Your task to perform on an android device: uninstall "Gboard" Image 0: 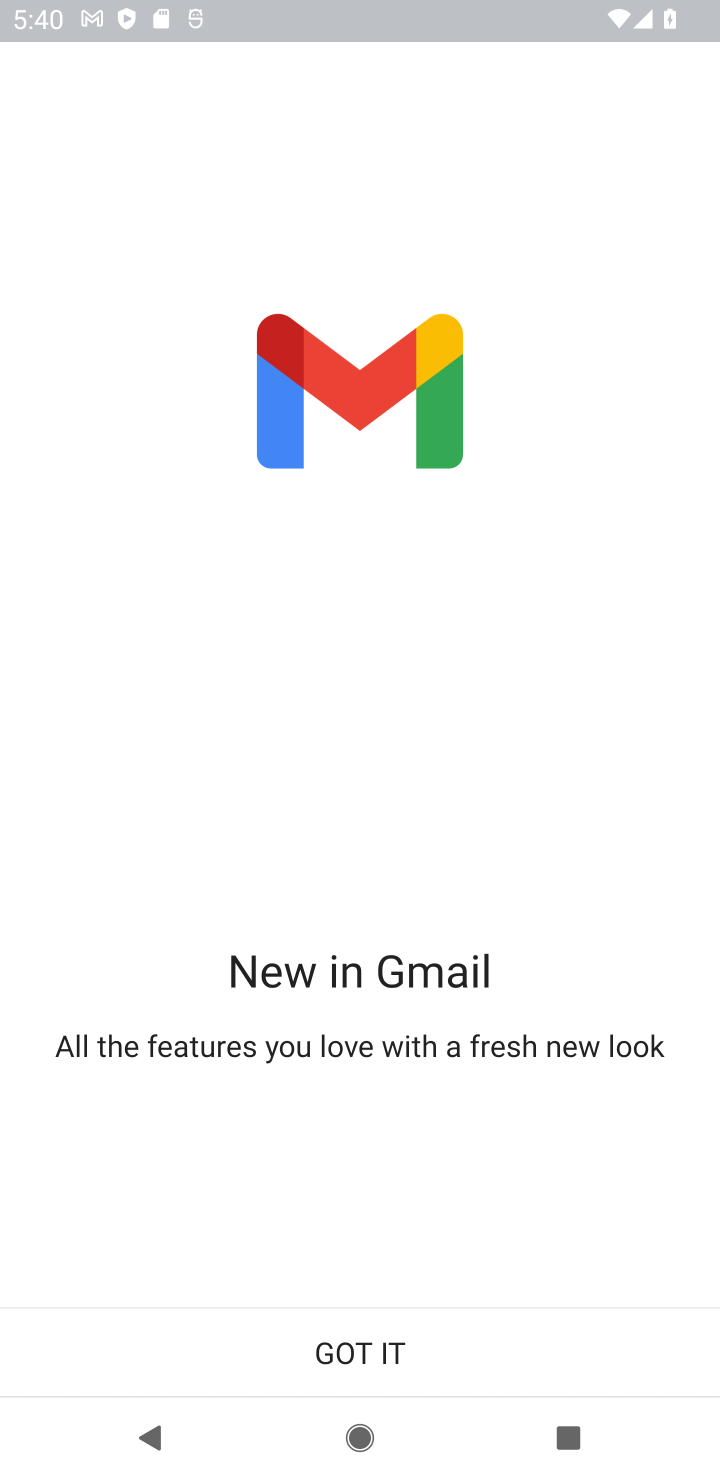
Step 0: press home button
Your task to perform on an android device: uninstall "Gboard" Image 1: 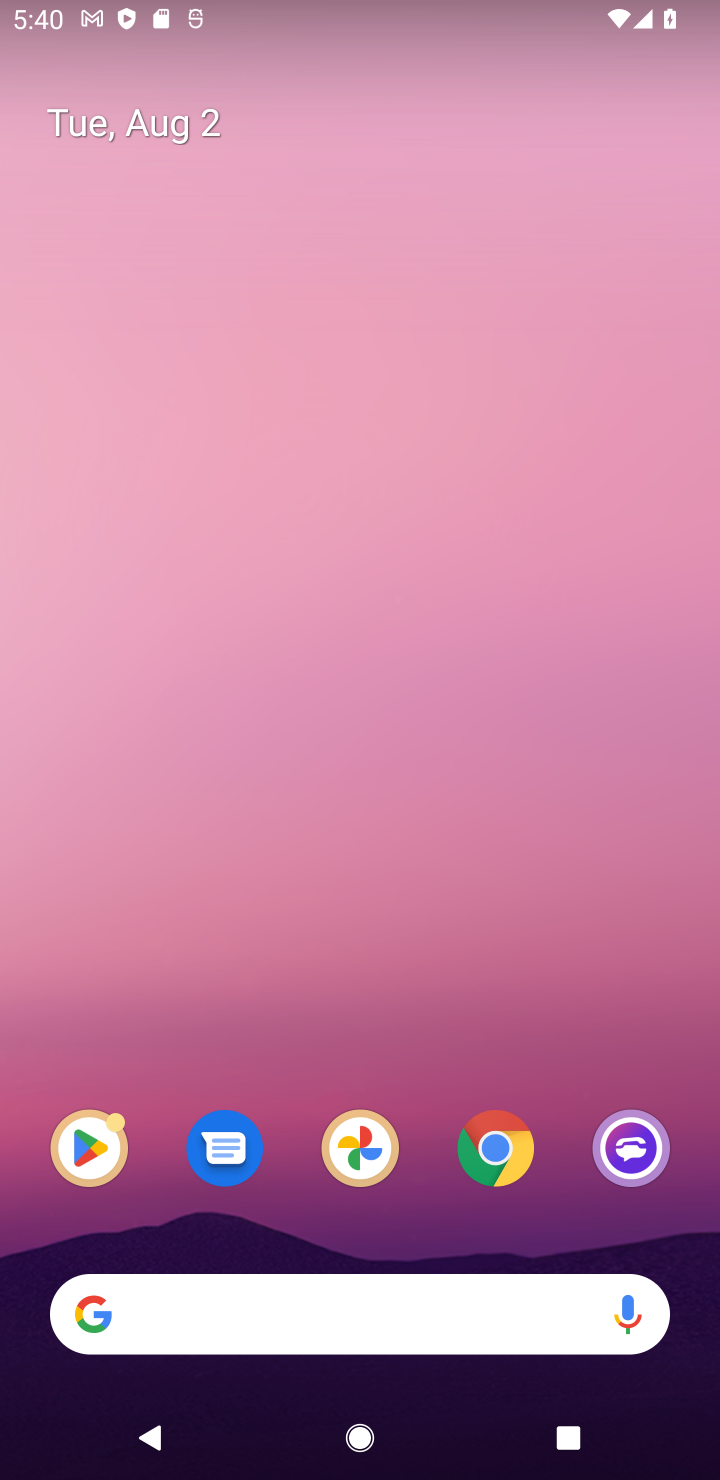
Step 1: drag from (673, 1216) to (356, 184)
Your task to perform on an android device: uninstall "Gboard" Image 2: 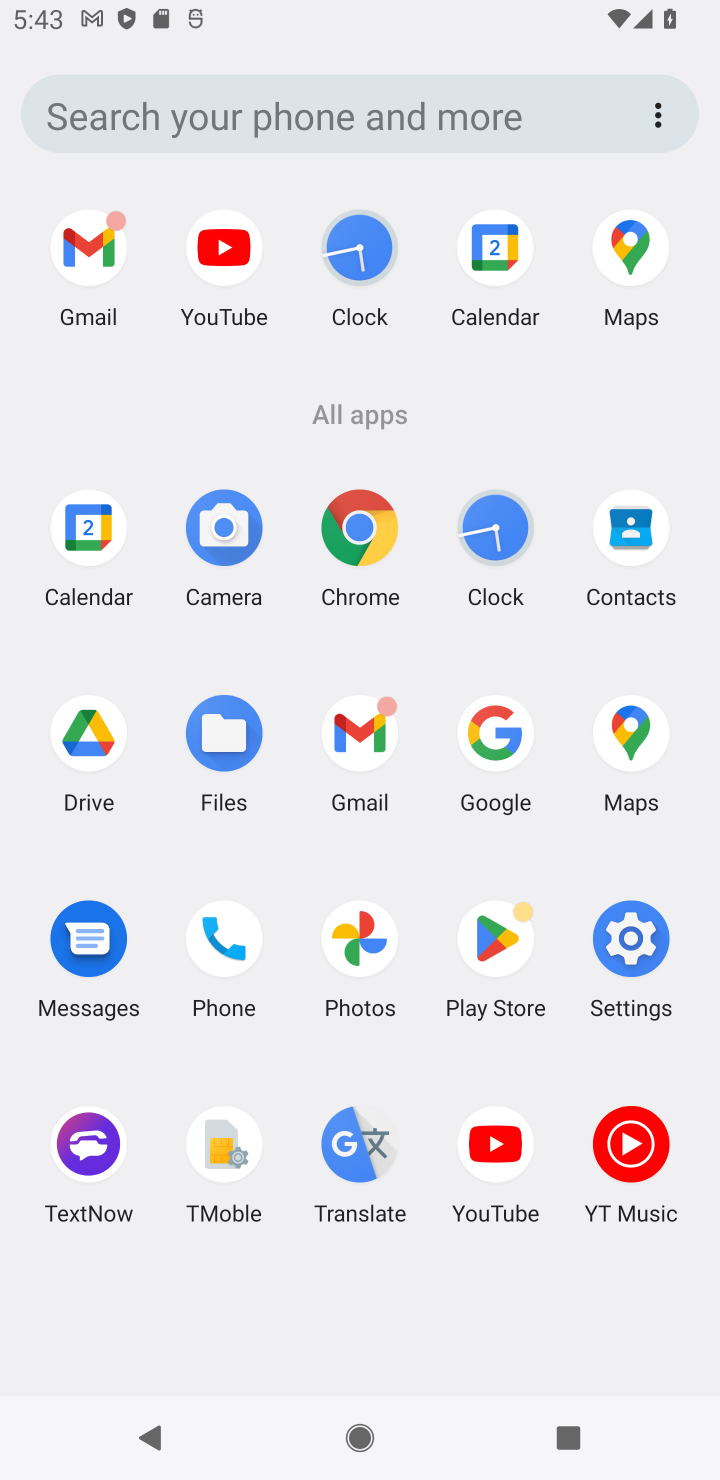
Step 2: click (484, 932)
Your task to perform on an android device: uninstall "Gboard" Image 3: 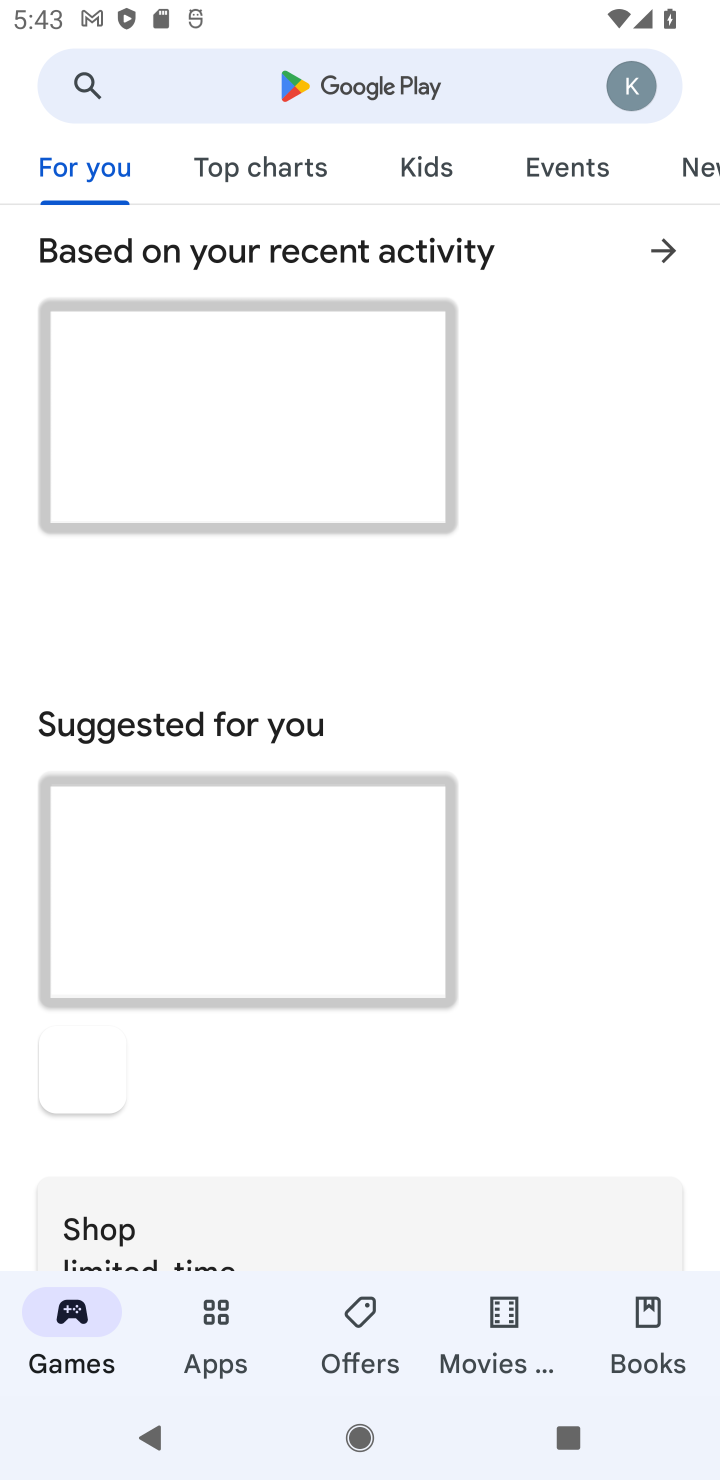
Step 3: click (238, 111)
Your task to perform on an android device: uninstall "Gboard" Image 4: 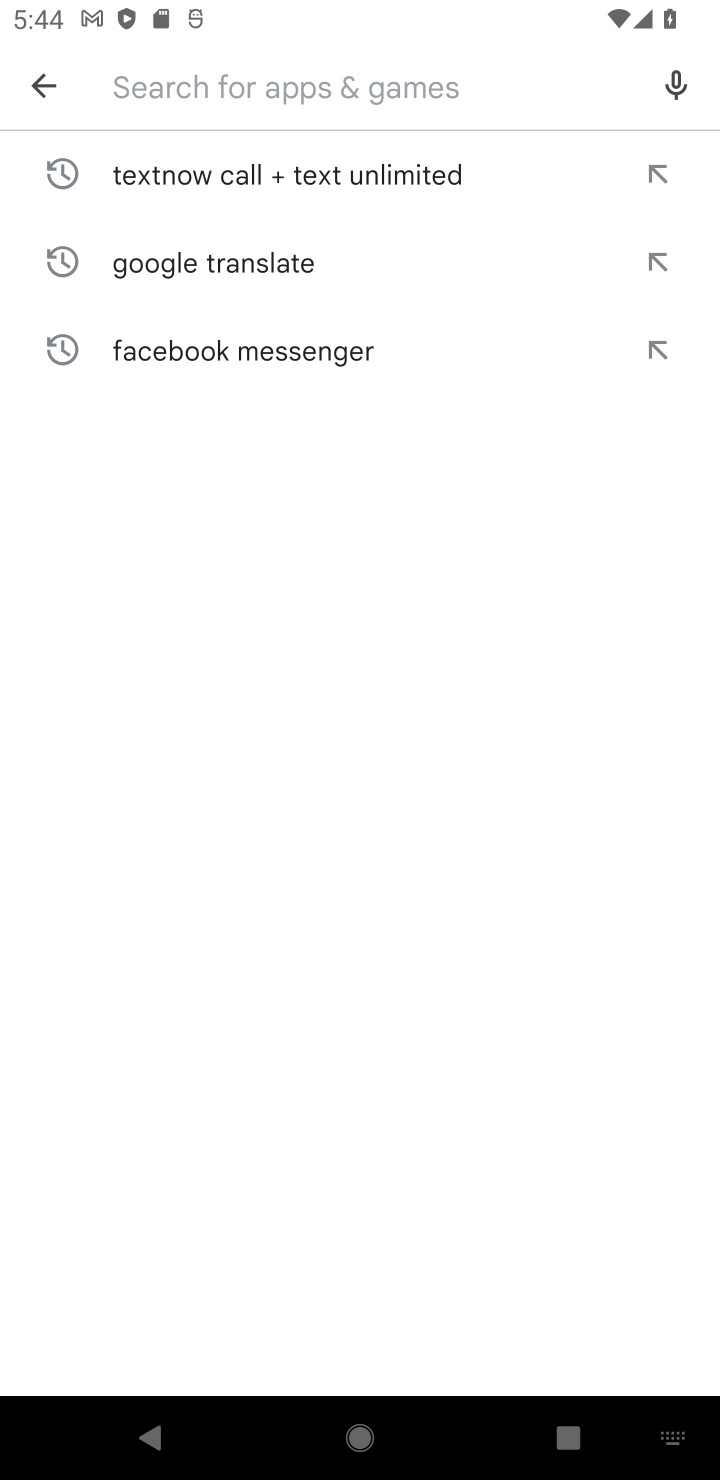
Step 4: type "Gboard"
Your task to perform on an android device: uninstall "Gboard" Image 5: 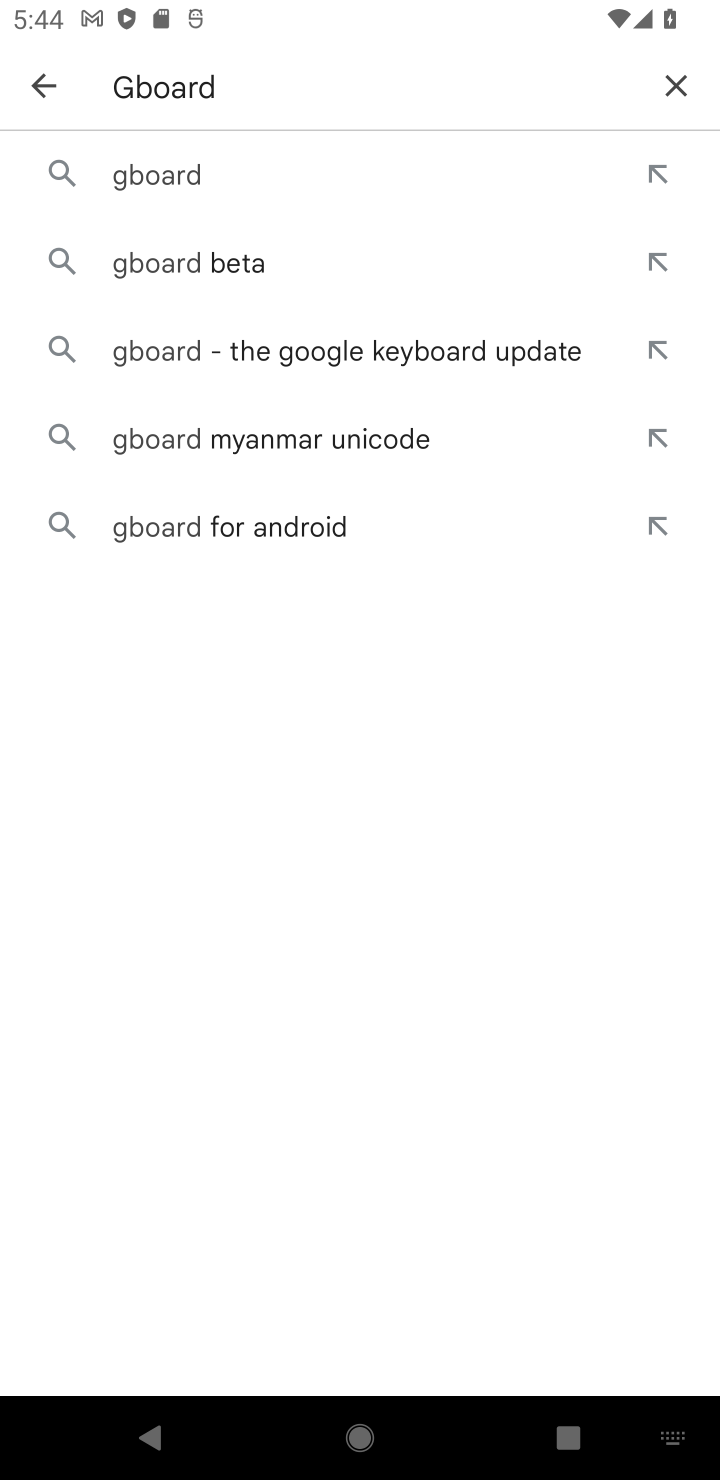
Step 5: click (202, 185)
Your task to perform on an android device: uninstall "Gboard" Image 6: 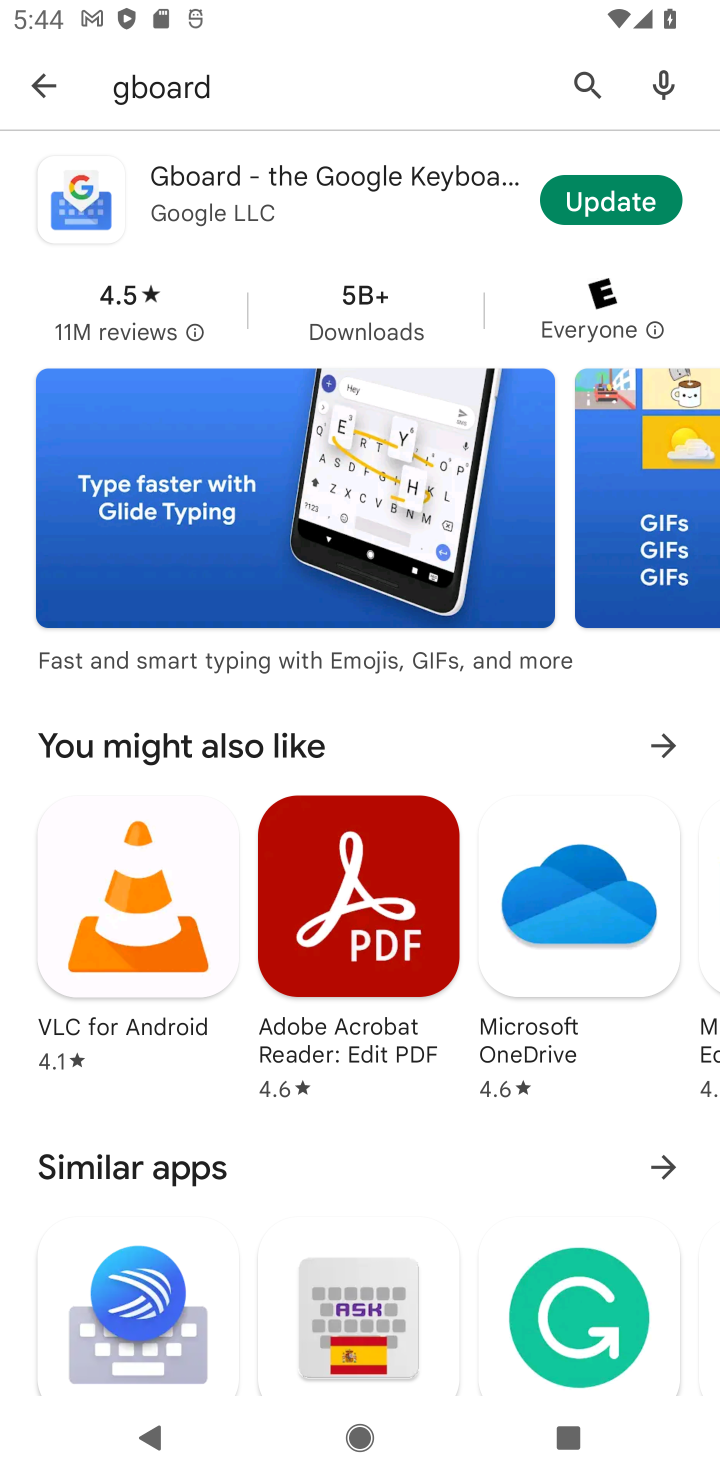
Step 6: click (645, 188)
Your task to perform on an android device: uninstall "Gboard" Image 7: 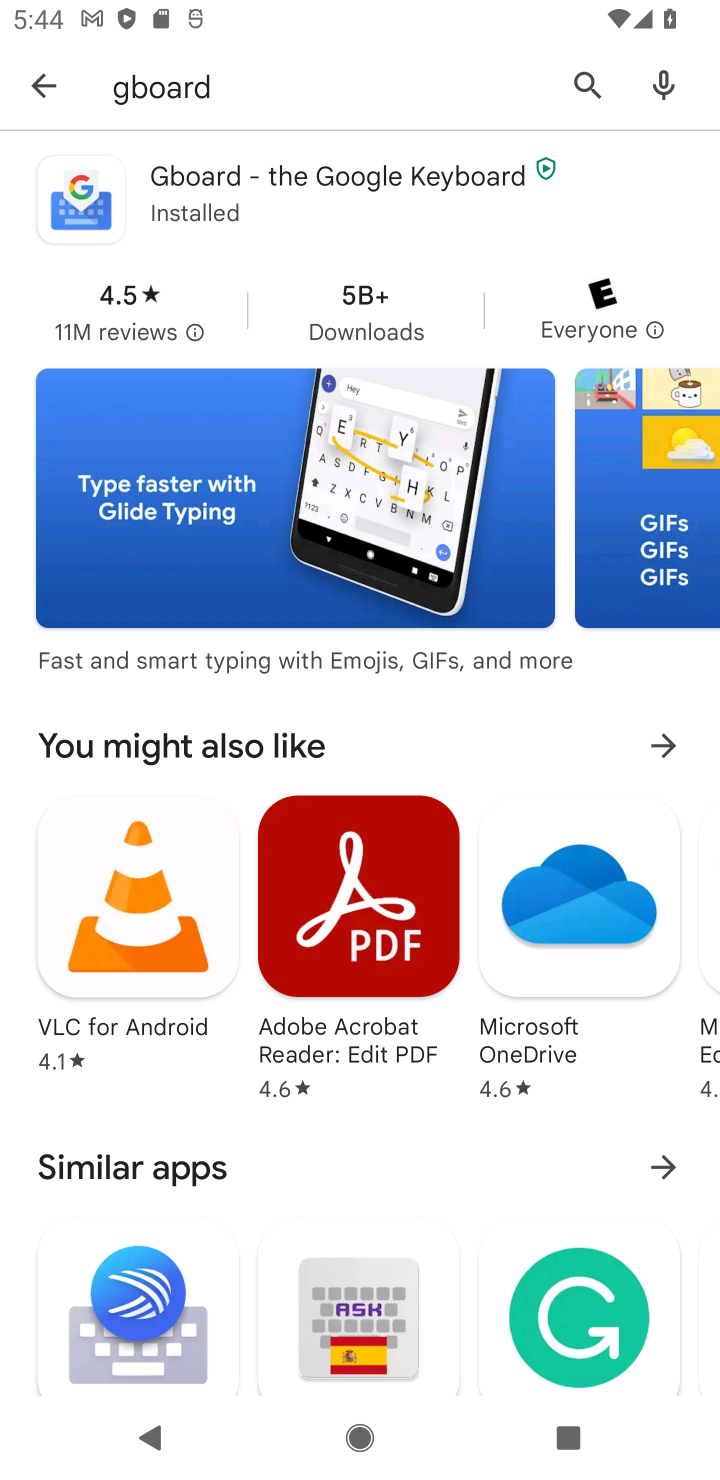
Step 7: click (118, 195)
Your task to perform on an android device: uninstall "Gboard" Image 8: 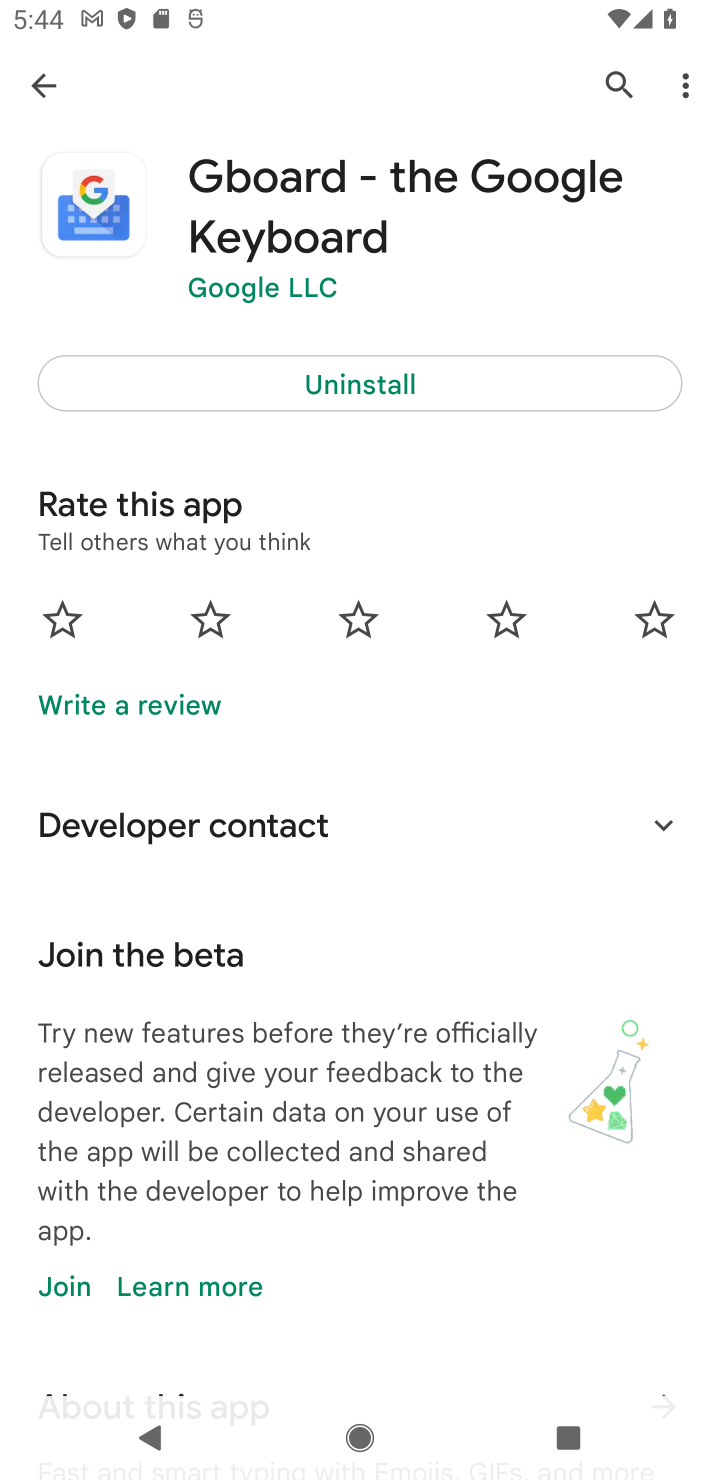
Step 8: click (388, 394)
Your task to perform on an android device: uninstall "Gboard" Image 9: 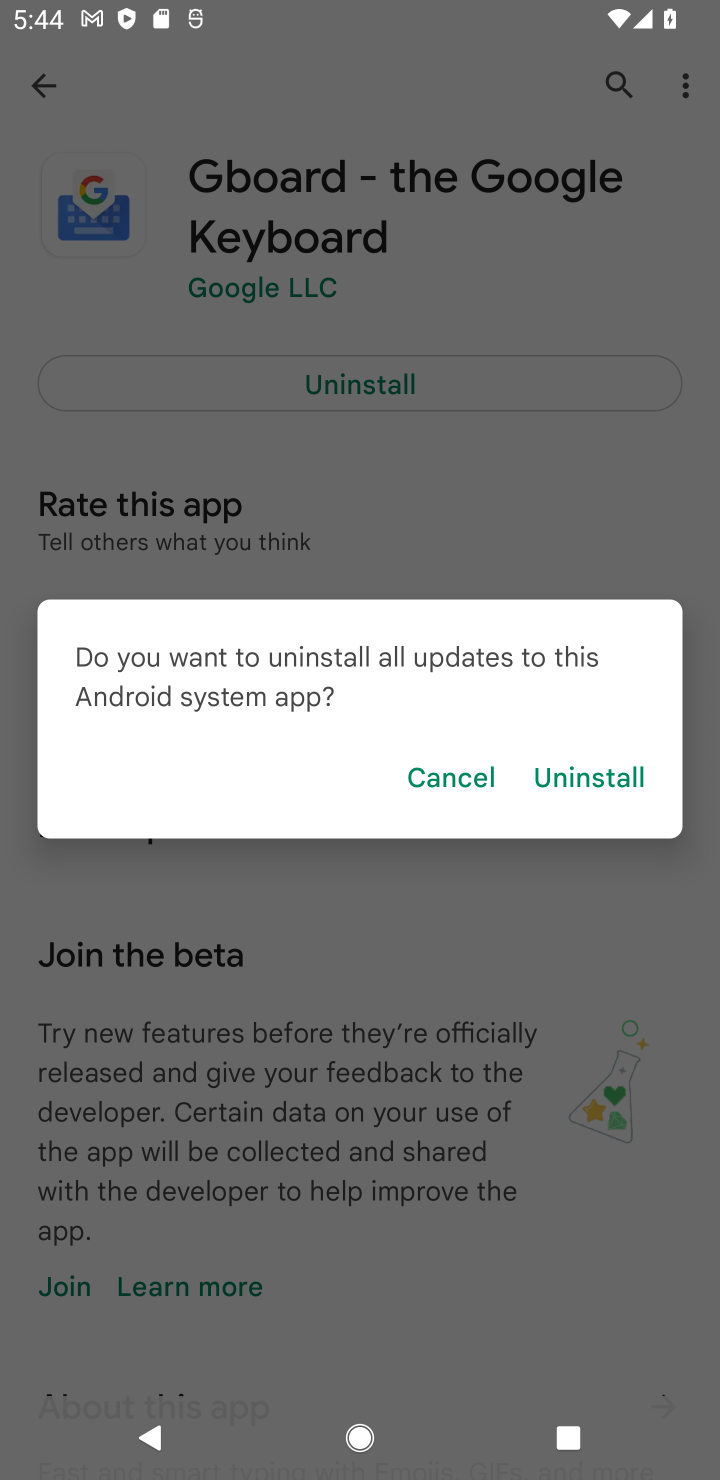
Step 9: click (595, 790)
Your task to perform on an android device: uninstall "Gboard" Image 10: 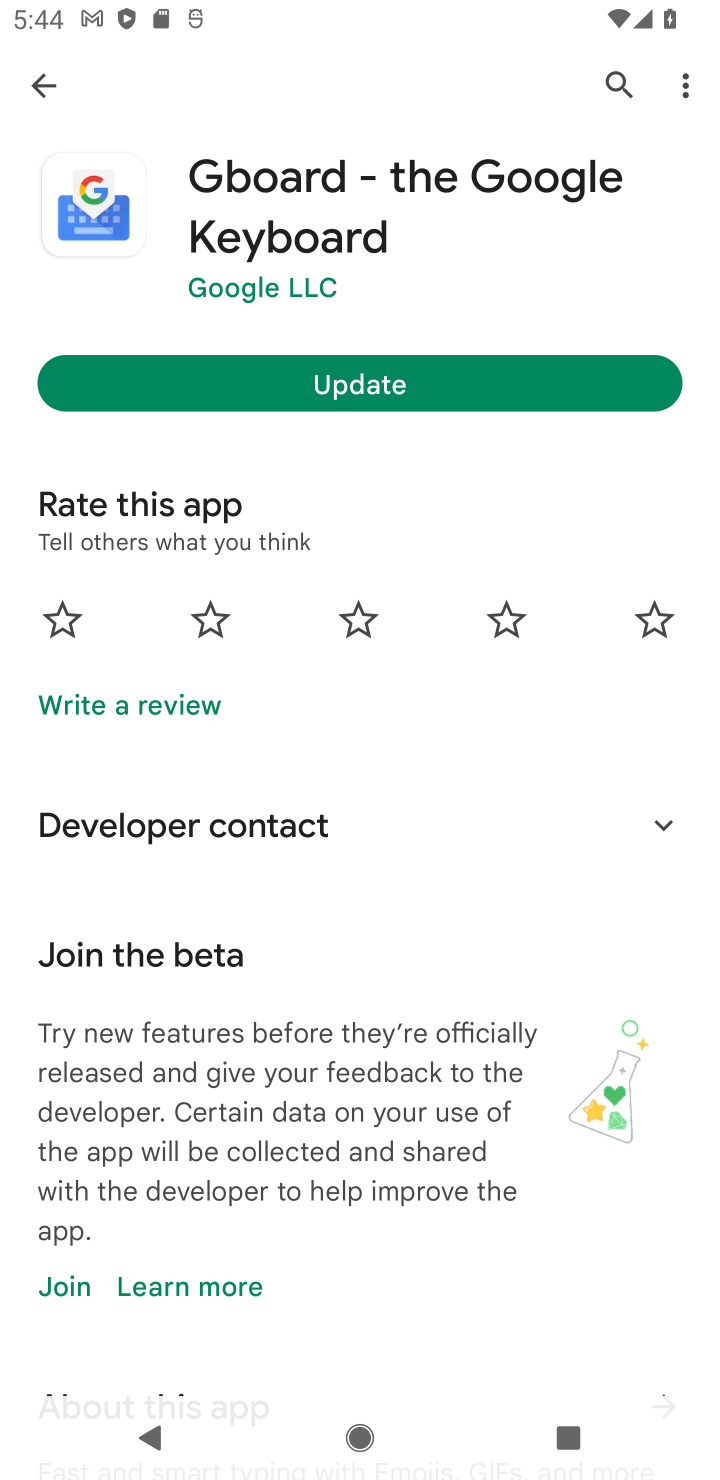
Step 10: task complete